Your task to perform on an android device: Go to Google Image 0: 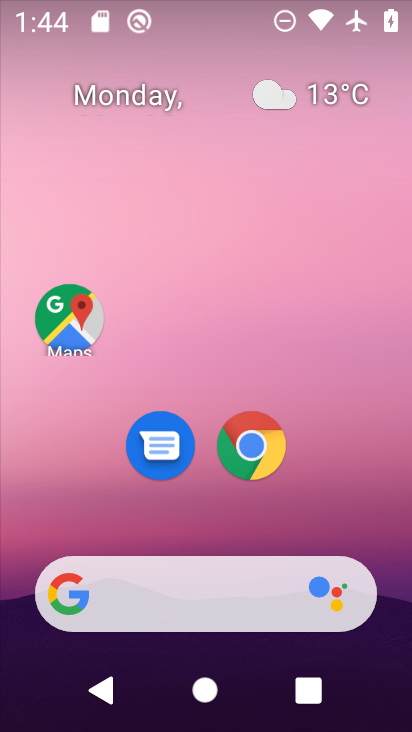
Step 0: drag from (388, 615) to (317, 109)
Your task to perform on an android device: Go to Google Image 1: 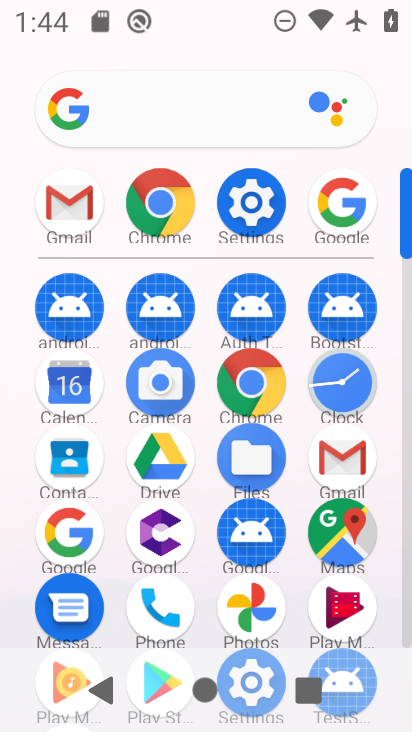
Step 1: click (86, 537)
Your task to perform on an android device: Go to Google Image 2: 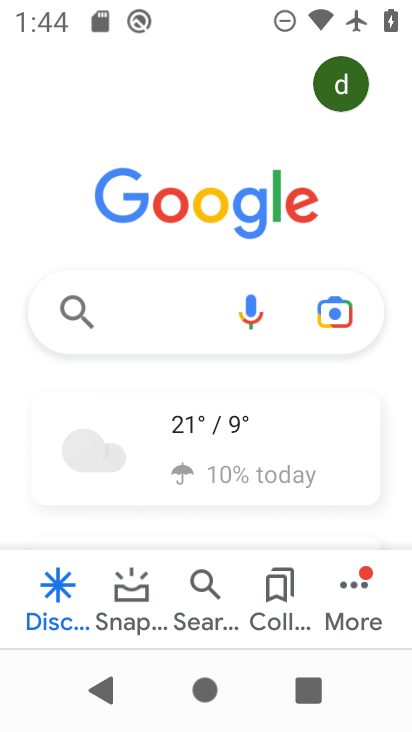
Step 2: task complete